Your task to perform on an android device: Go to location settings Image 0: 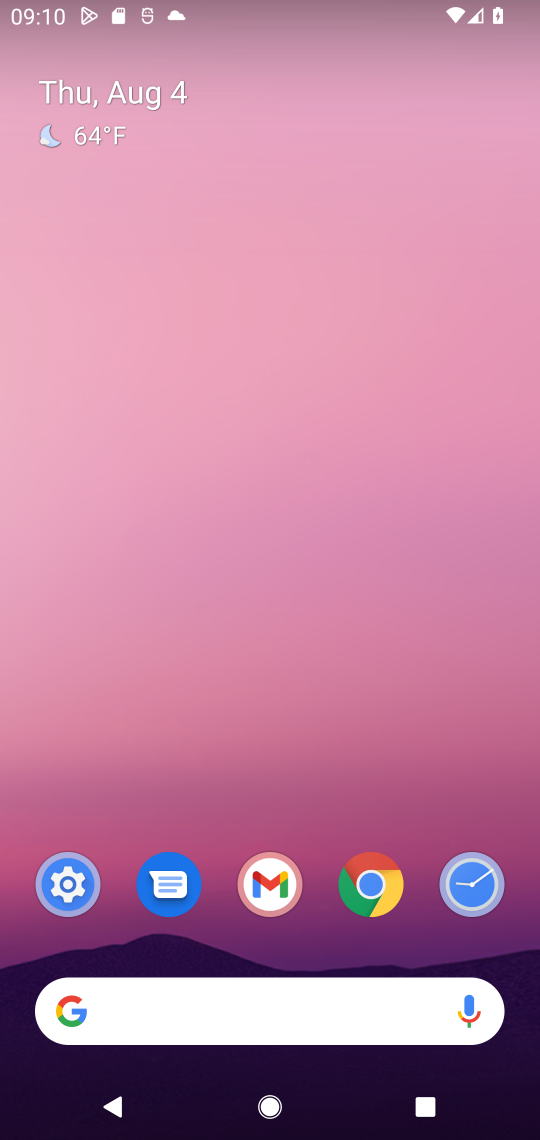
Step 0: click (77, 869)
Your task to perform on an android device: Go to location settings Image 1: 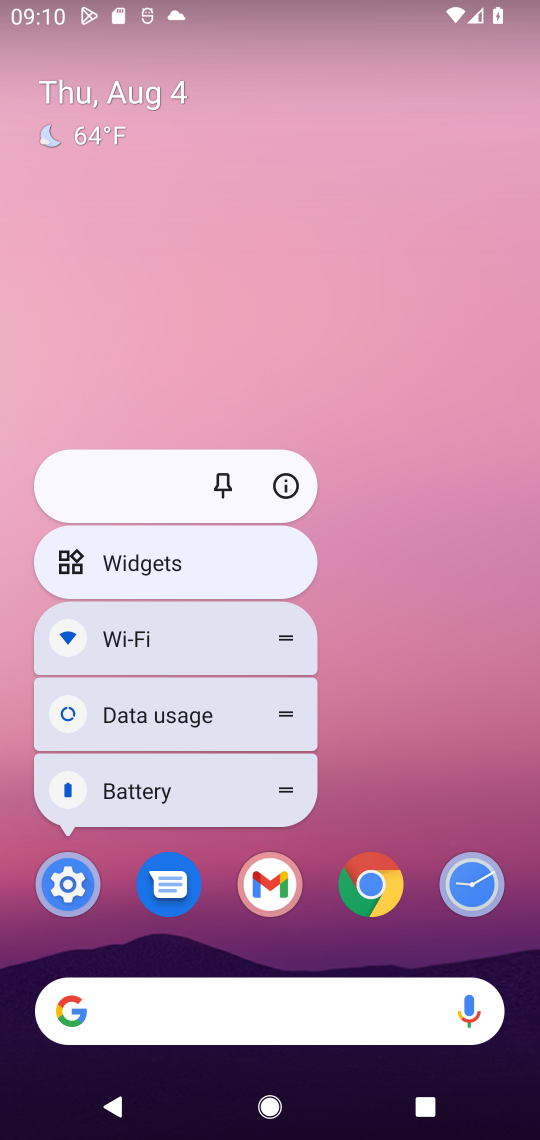
Step 1: click (77, 879)
Your task to perform on an android device: Go to location settings Image 2: 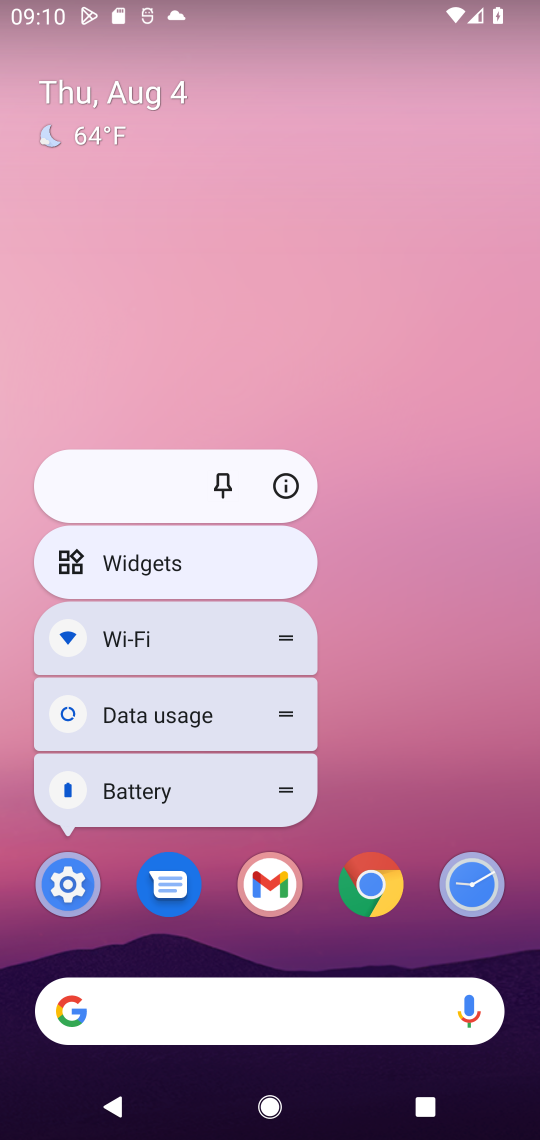
Step 2: click (77, 879)
Your task to perform on an android device: Go to location settings Image 3: 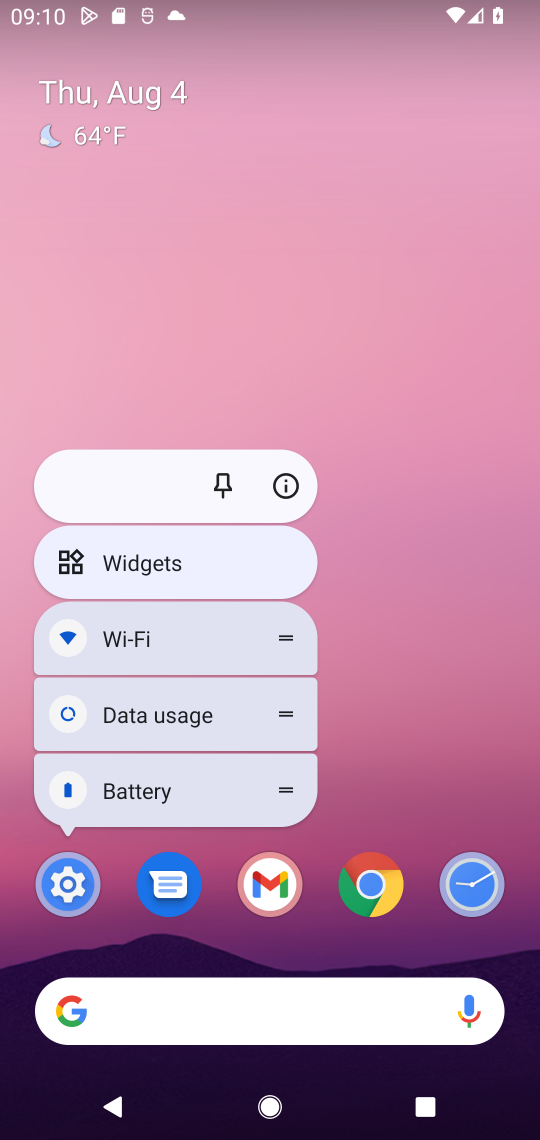
Step 3: click (77, 881)
Your task to perform on an android device: Go to location settings Image 4: 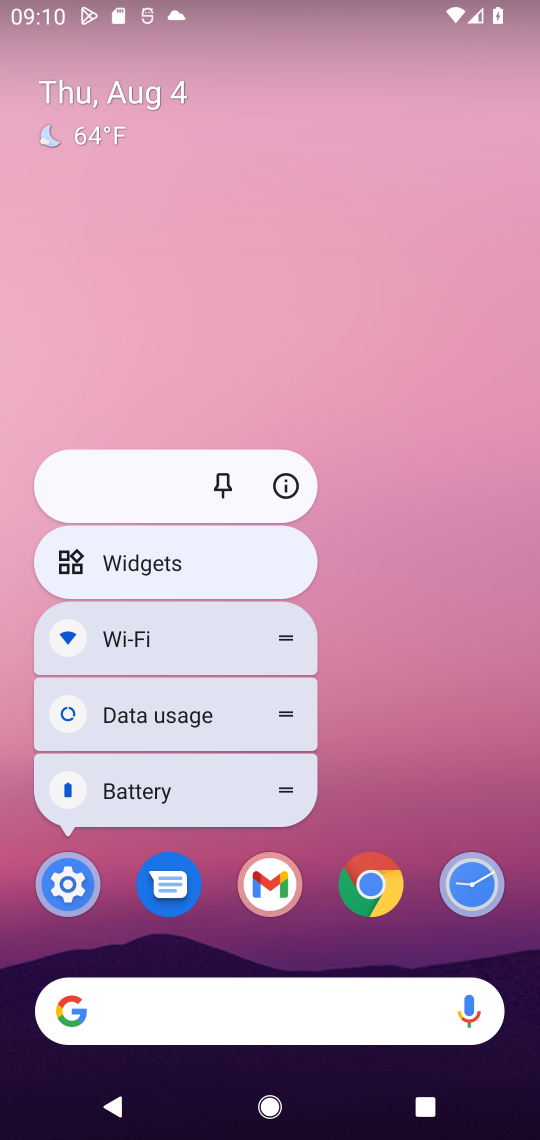
Step 4: click (77, 881)
Your task to perform on an android device: Go to location settings Image 5: 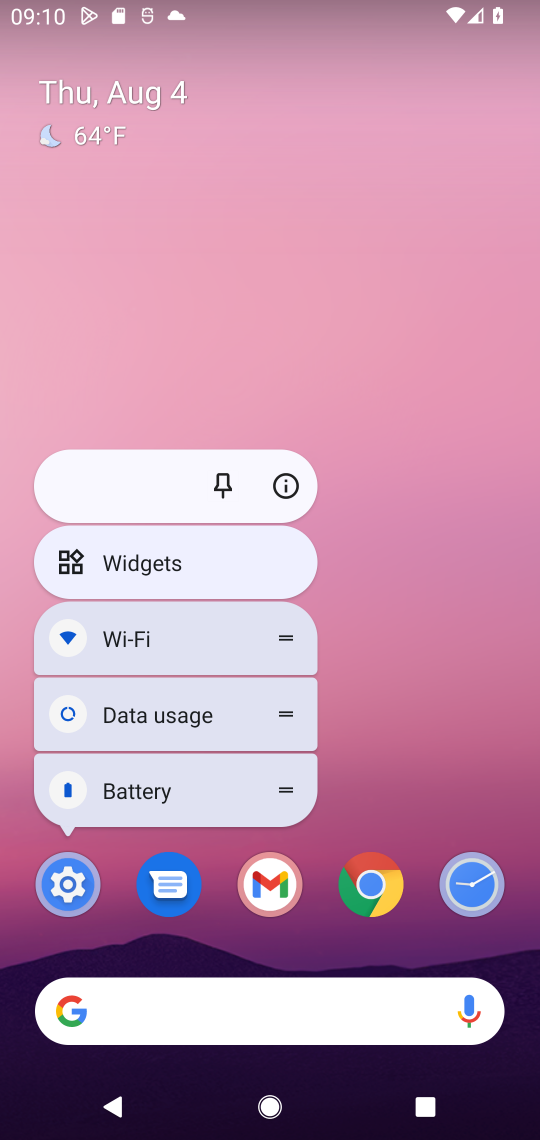
Step 5: click (77, 881)
Your task to perform on an android device: Go to location settings Image 6: 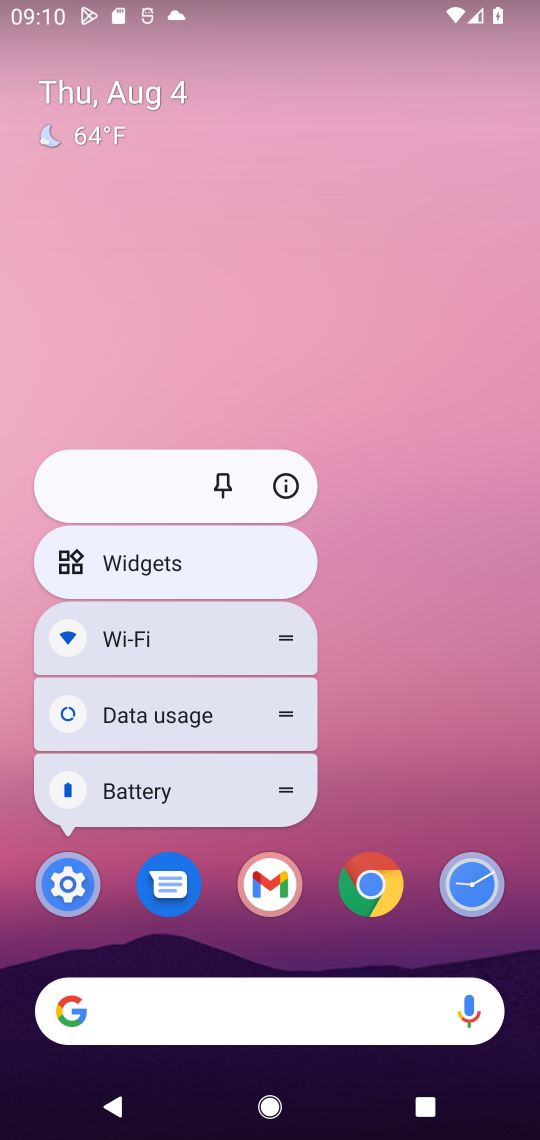
Step 6: click (77, 897)
Your task to perform on an android device: Go to location settings Image 7: 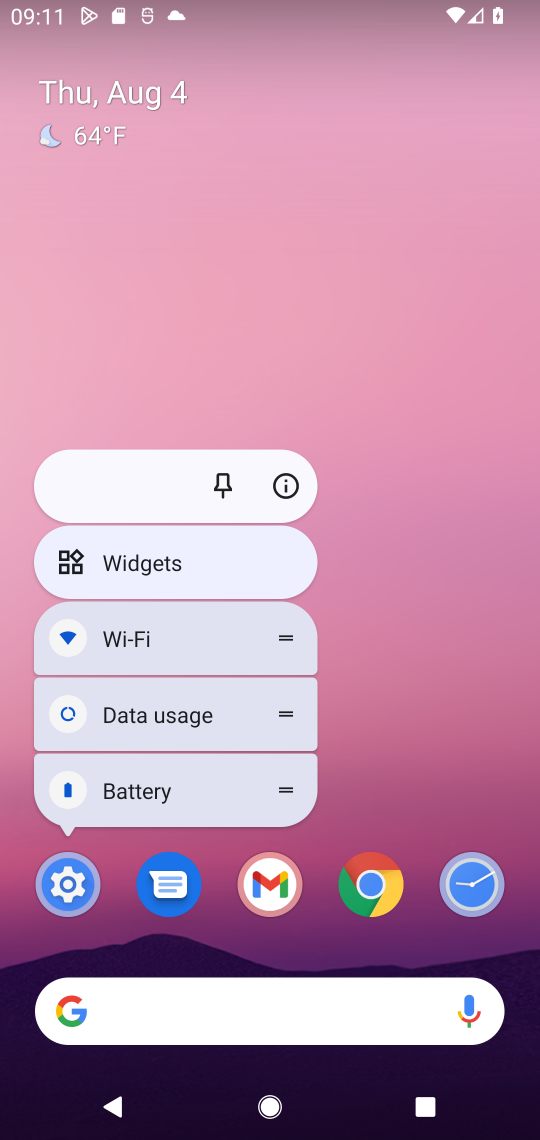
Step 7: click (77, 897)
Your task to perform on an android device: Go to location settings Image 8: 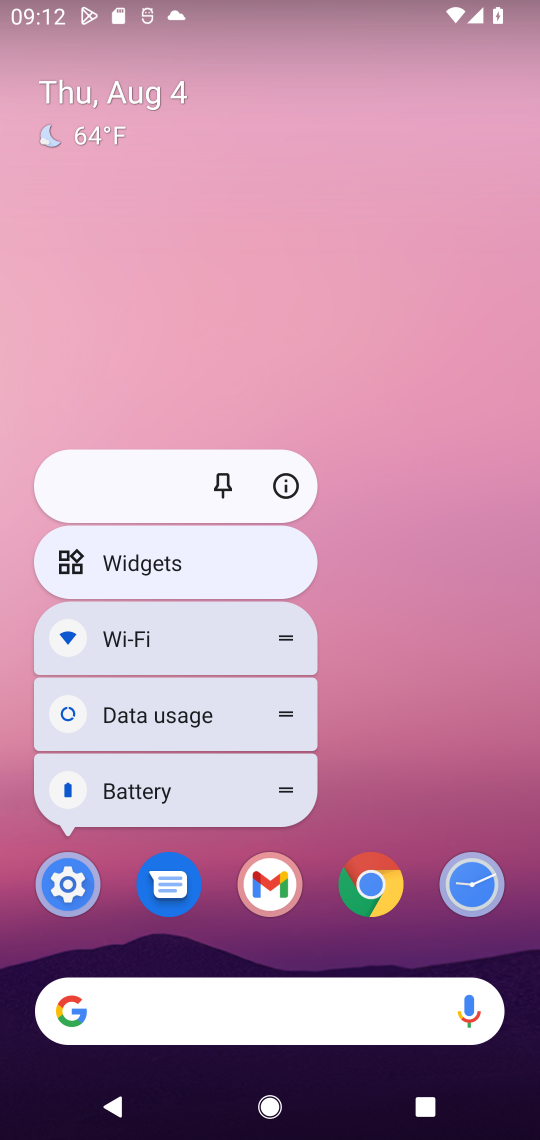
Step 8: click (374, 901)
Your task to perform on an android device: Go to location settings Image 9: 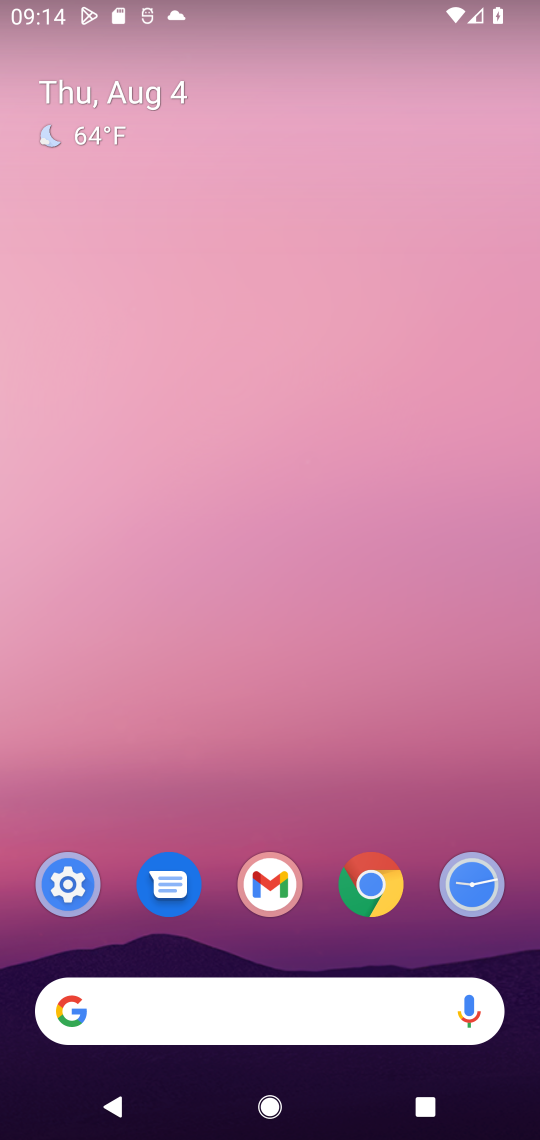
Step 9: click (76, 891)
Your task to perform on an android device: Go to location settings Image 10: 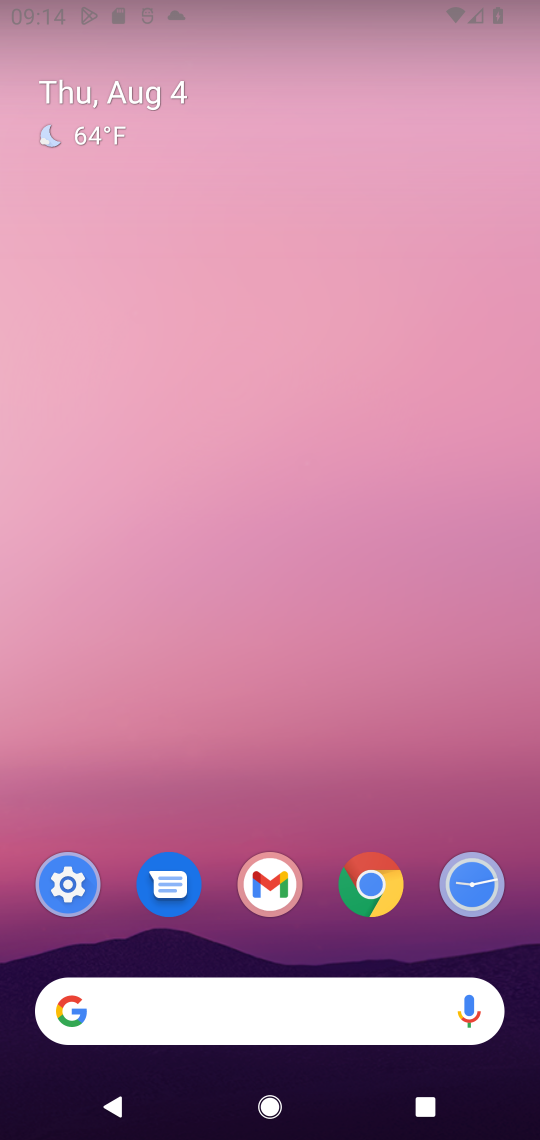
Step 10: drag from (225, 238) to (229, 33)
Your task to perform on an android device: Go to location settings Image 11: 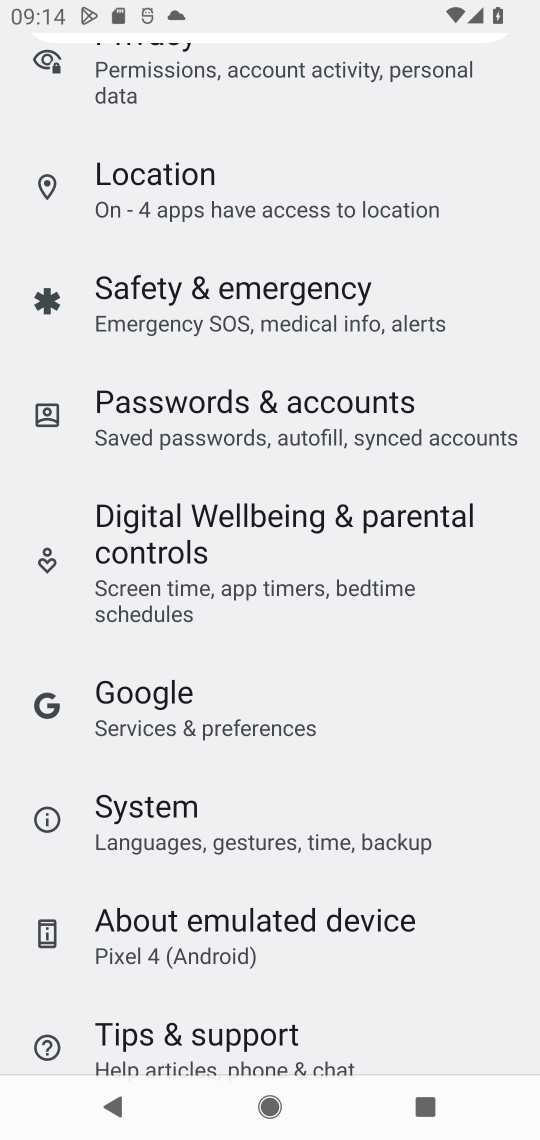
Step 11: press home button
Your task to perform on an android device: Go to location settings Image 12: 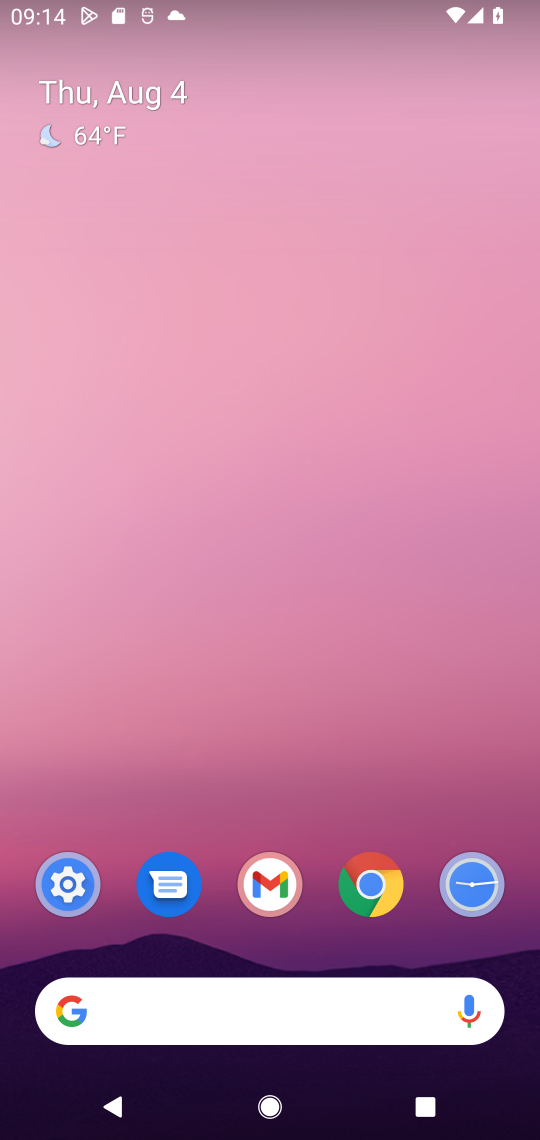
Step 12: click (61, 900)
Your task to perform on an android device: Go to location settings Image 13: 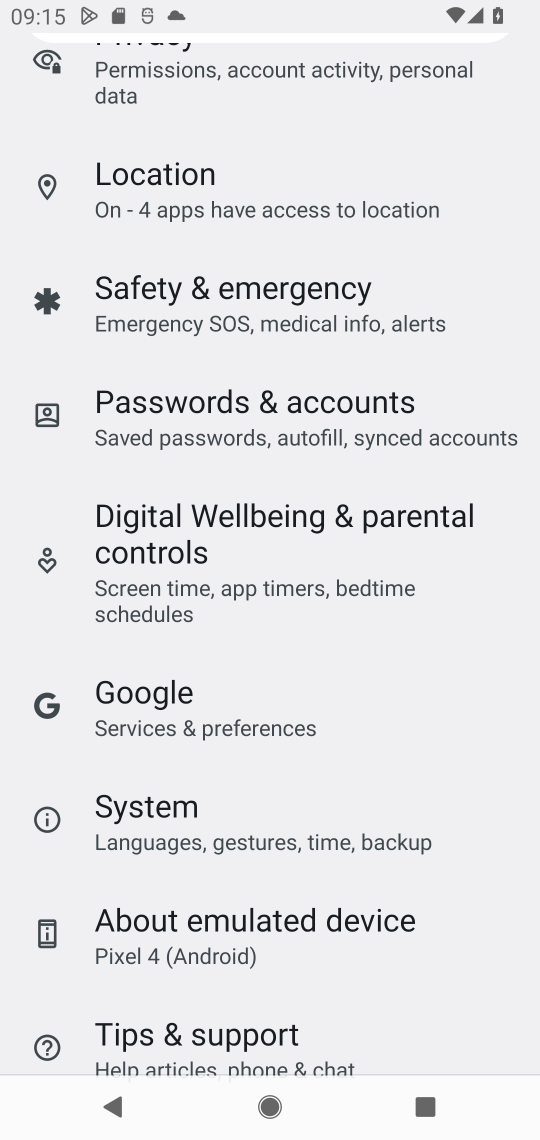
Step 13: click (312, 210)
Your task to perform on an android device: Go to location settings Image 14: 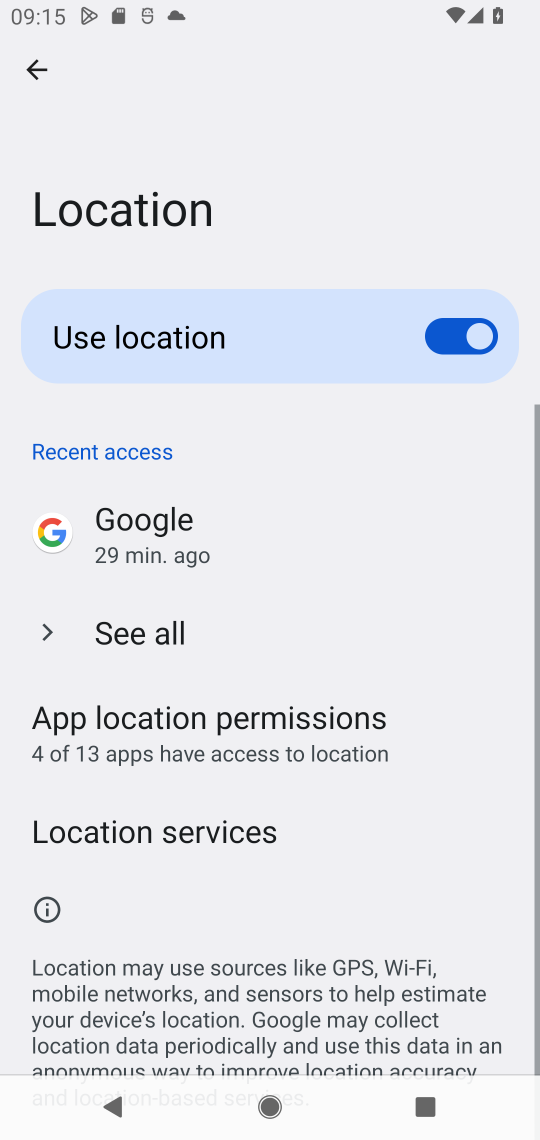
Step 14: task complete